Your task to perform on an android device: turn on the 24-hour format for clock Image 0: 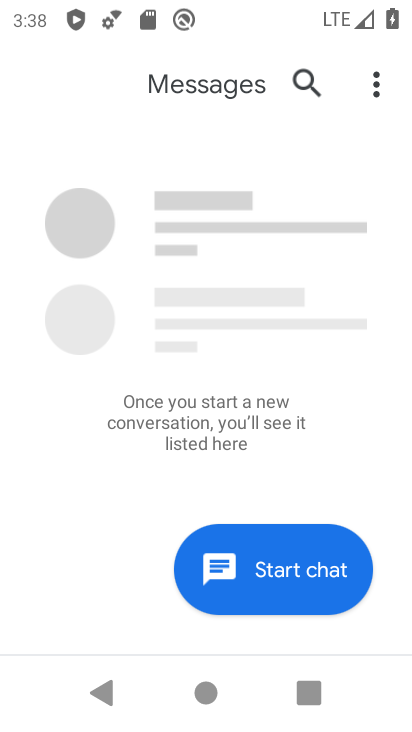
Step 0: press back button
Your task to perform on an android device: turn on the 24-hour format for clock Image 1: 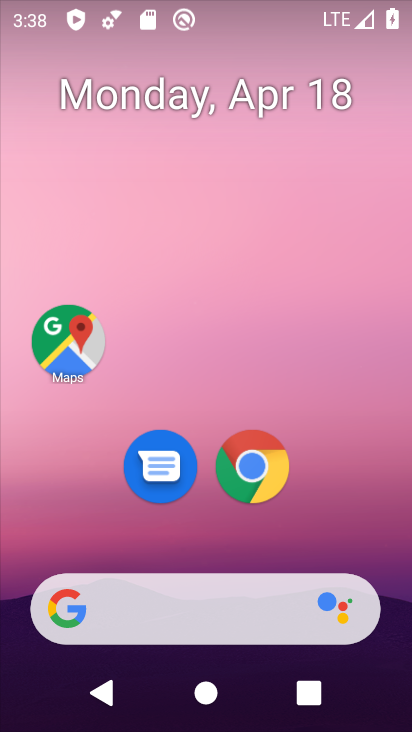
Step 1: drag from (352, 513) to (343, 114)
Your task to perform on an android device: turn on the 24-hour format for clock Image 2: 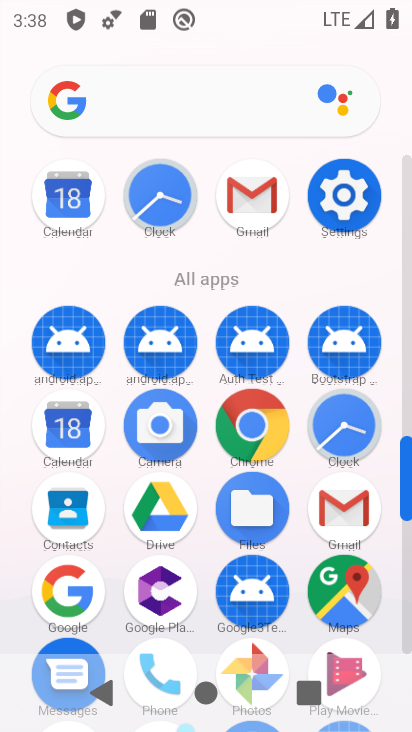
Step 2: click (344, 197)
Your task to perform on an android device: turn on the 24-hour format for clock Image 3: 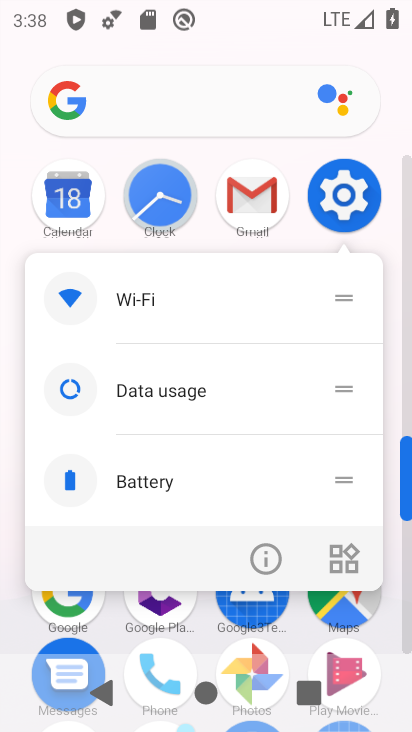
Step 3: click (172, 205)
Your task to perform on an android device: turn on the 24-hour format for clock Image 4: 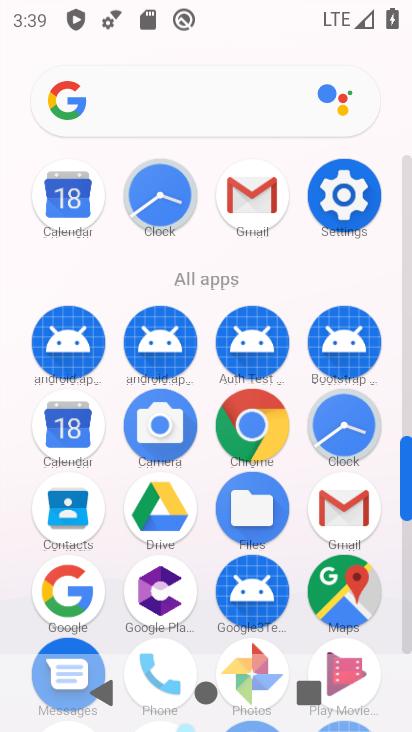
Step 4: click (172, 205)
Your task to perform on an android device: turn on the 24-hour format for clock Image 5: 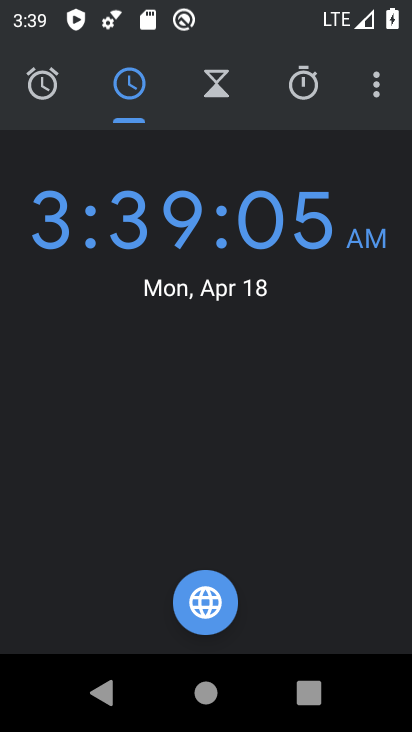
Step 5: click (374, 89)
Your task to perform on an android device: turn on the 24-hour format for clock Image 6: 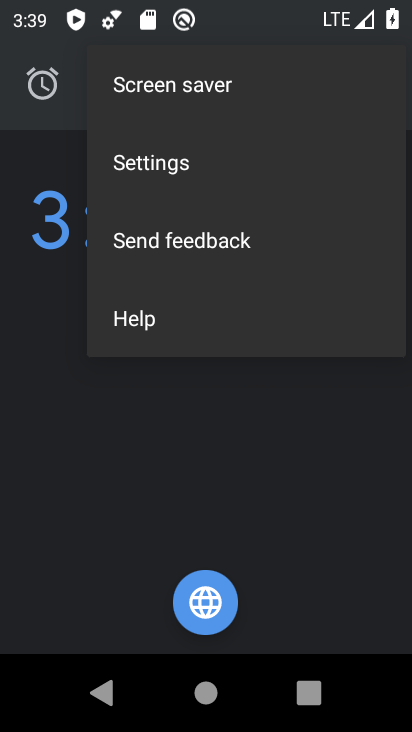
Step 6: click (237, 177)
Your task to perform on an android device: turn on the 24-hour format for clock Image 7: 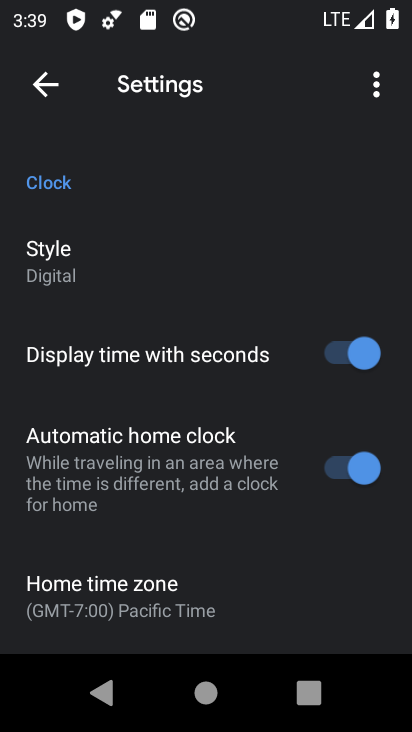
Step 7: drag from (163, 525) to (210, 242)
Your task to perform on an android device: turn on the 24-hour format for clock Image 8: 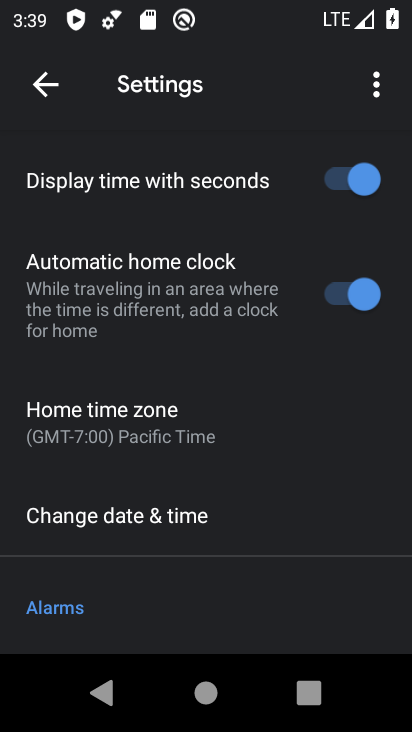
Step 8: click (205, 507)
Your task to perform on an android device: turn on the 24-hour format for clock Image 9: 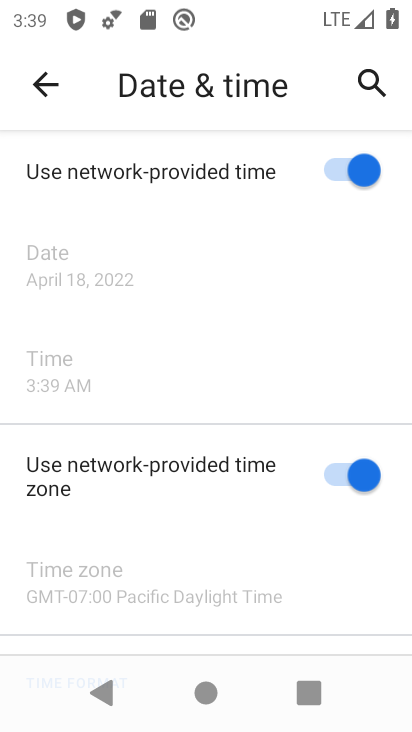
Step 9: drag from (224, 546) to (258, 138)
Your task to perform on an android device: turn on the 24-hour format for clock Image 10: 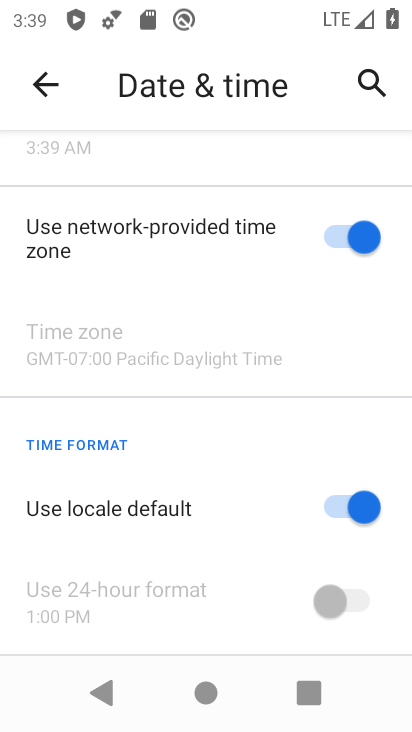
Step 10: drag from (171, 554) to (221, 218)
Your task to perform on an android device: turn on the 24-hour format for clock Image 11: 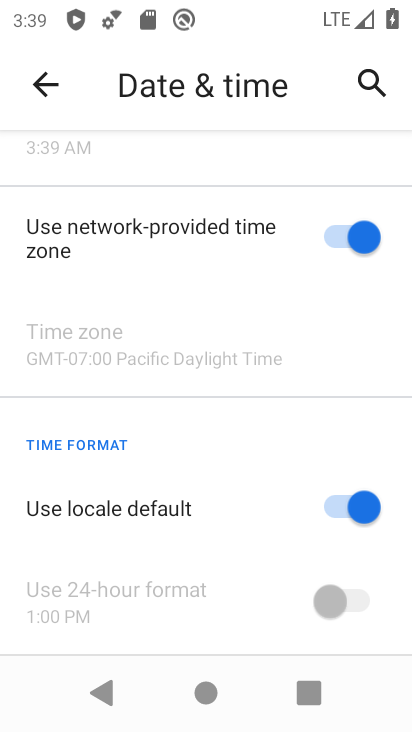
Step 11: click (330, 496)
Your task to perform on an android device: turn on the 24-hour format for clock Image 12: 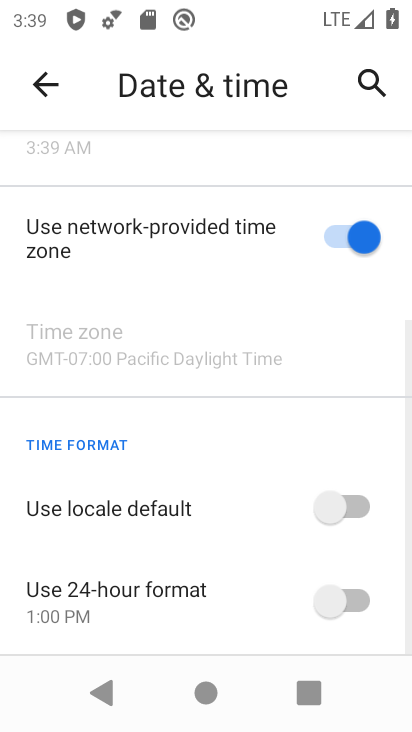
Step 12: click (353, 598)
Your task to perform on an android device: turn on the 24-hour format for clock Image 13: 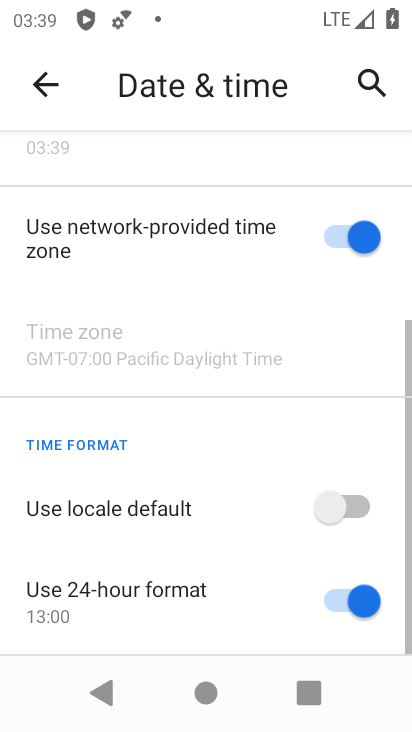
Step 13: task complete